Your task to perform on an android device: What's on my calendar today? Image 0: 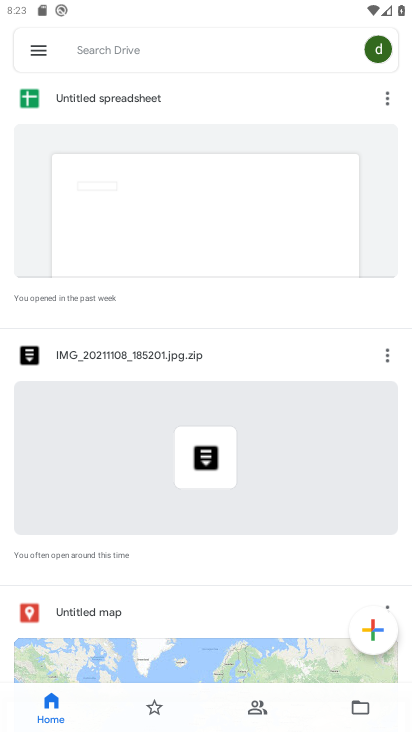
Step 0: press home button
Your task to perform on an android device: What's on my calendar today? Image 1: 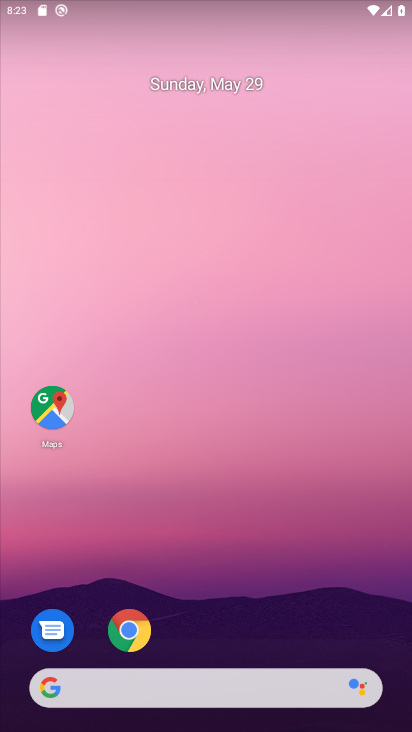
Step 1: drag from (210, 666) to (351, 80)
Your task to perform on an android device: What's on my calendar today? Image 2: 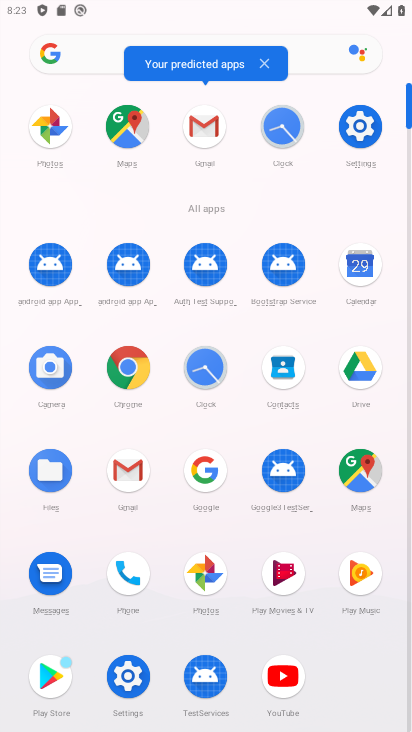
Step 2: click (356, 267)
Your task to perform on an android device: What's on my calendar today? Image 3: 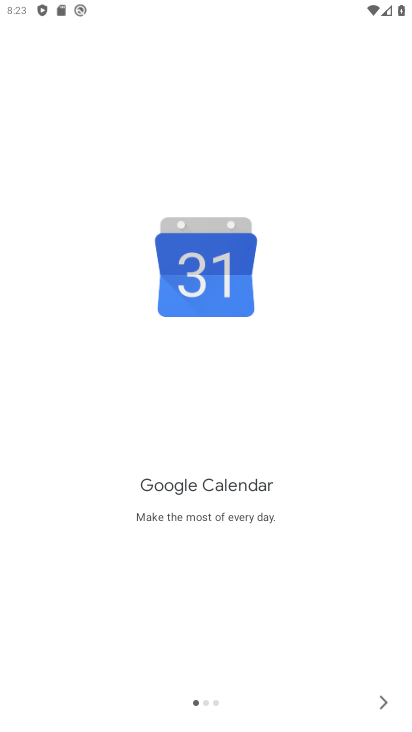
Step 3: click (384, 706)
Your task to perform on an android device: What's on my calendar today? Image 4: 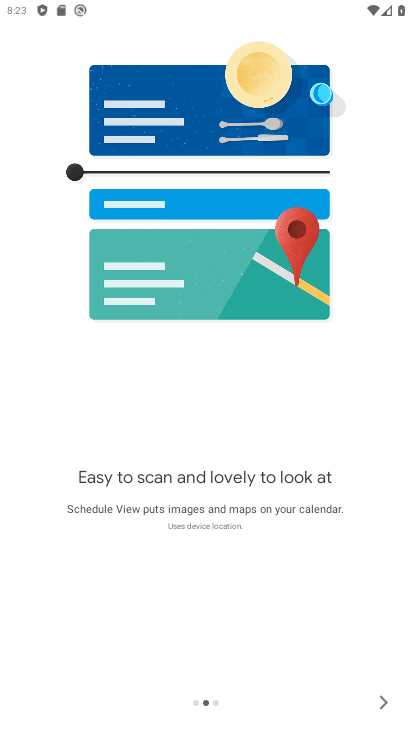
Step 4: click (384, 706)
Your task to perform on an android device: What's on my calendar today? Image 5: 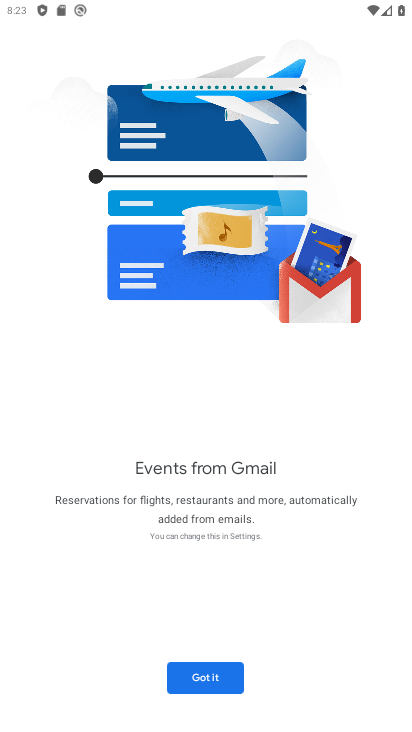
Step 5: click (225, 689)
Your task to perform on an android device: What's on my calendar today? Image 6: 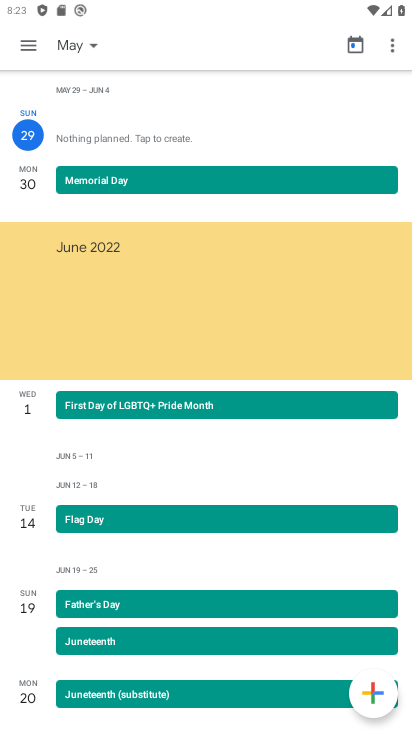
Step 6: click (35, 138)
Your task to perform on an android device: What's on my calendar today? Image 7: 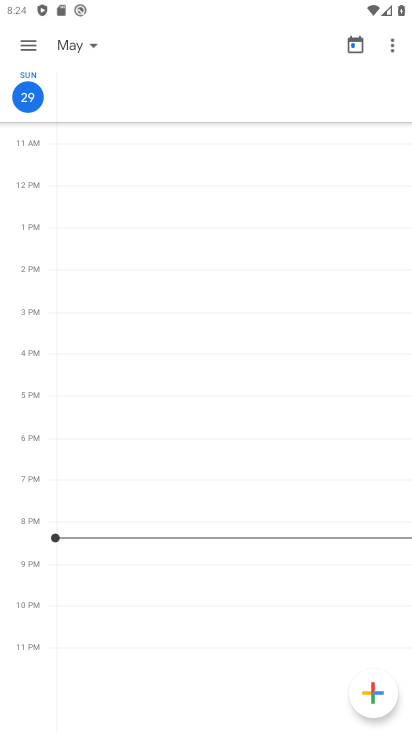
Step 7: task complete